Your task to perform on an android device: create a new album in the google photos Image 0: 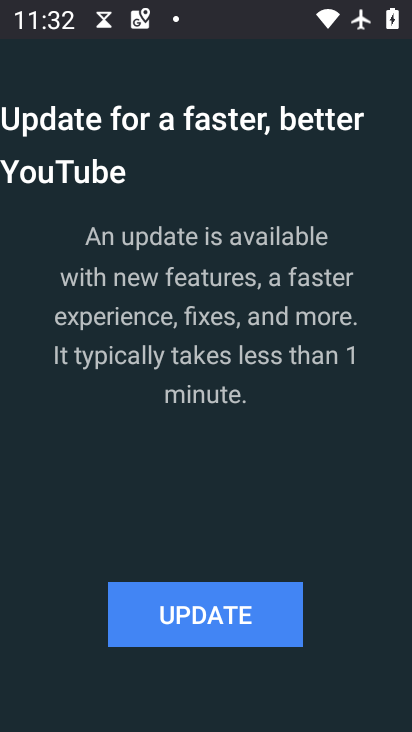
Step 0: press home button
Your task to perform on an android device: create a new album in the google photos Image 1: 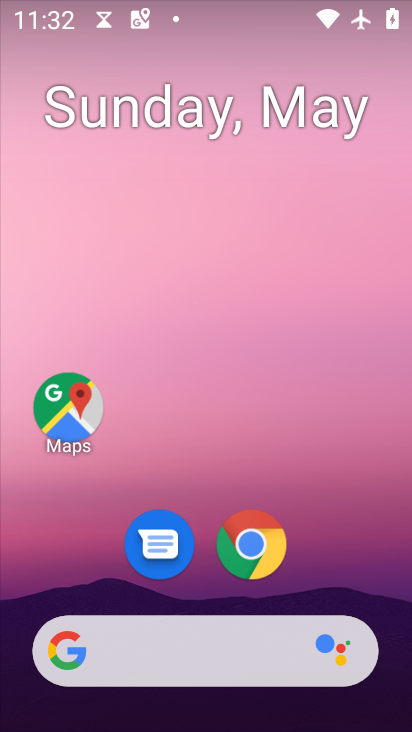
Step 1: drag from (331, 546) to (368, 154)
Your task to perform on an android device: create a new album in the google photos Image 2: 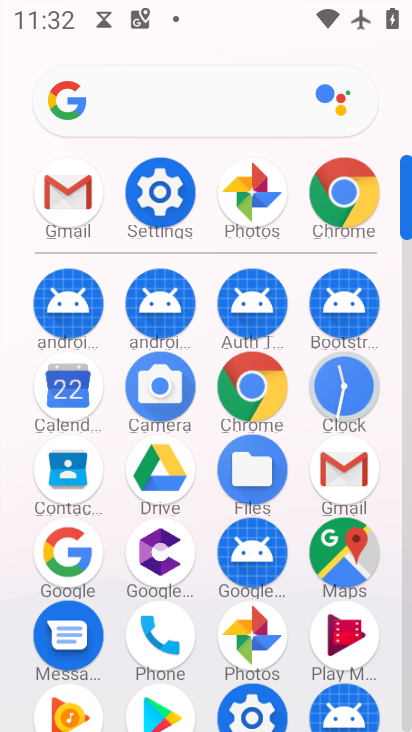
Step 2: click (246, 616)
Your task to perform on an android device: create a new album in the google photos Image 3: 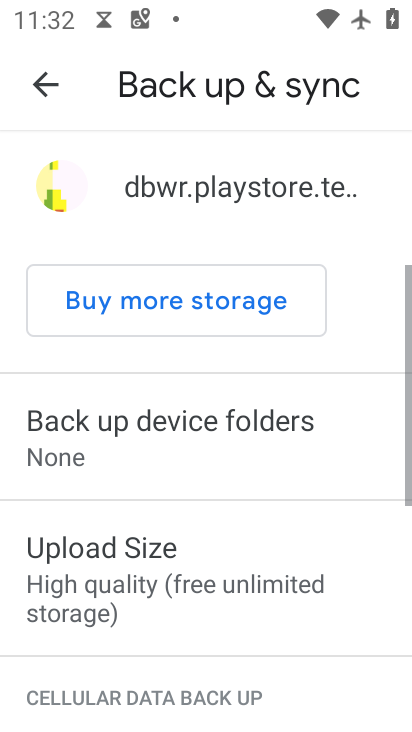
Step 3: click (67, 78)
Your task to perform on an android device: create a new album in the google photos Image 4: 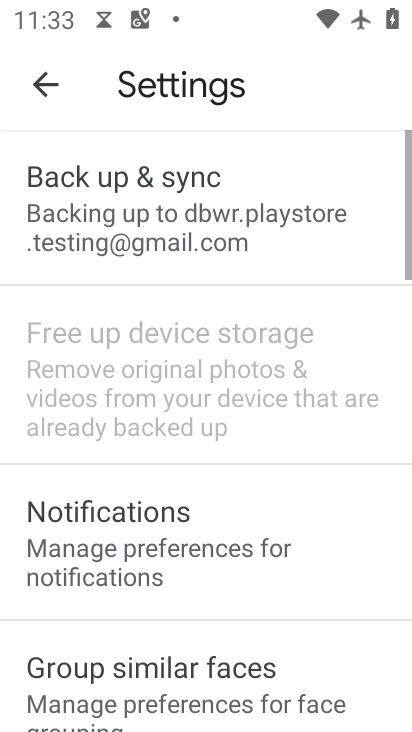
Step 4: click (64, 88)
Your task to perform on an android device: create a new album in the google photos Image 5: 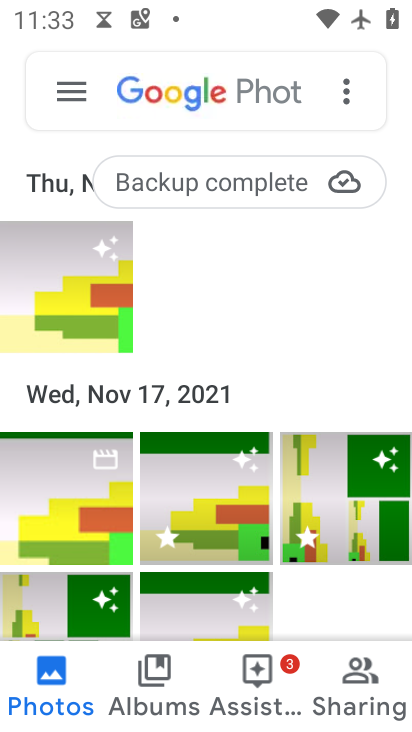
Step 5: click (44, 313)
Your task to perform on an android device: create a new album in the google photos Image 6: 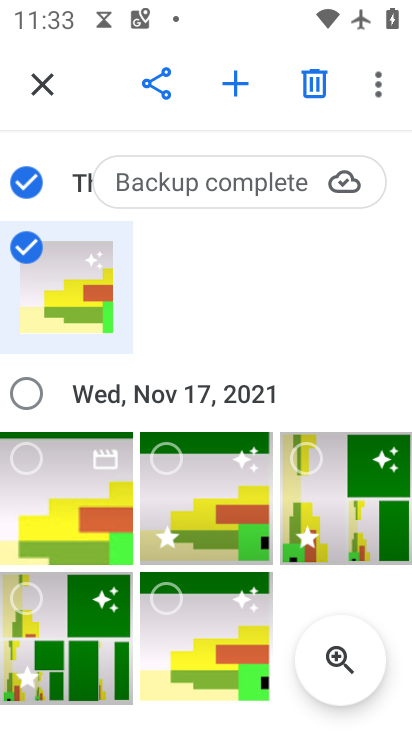
Step 6: click (244, 81)
Your task to perform on an android device: create a new album in the google photos Image 7: 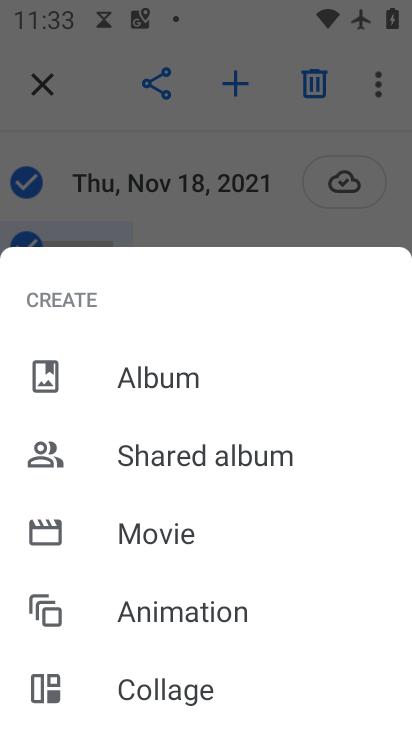
Step 7: click (247, 201)
Your task to perform on an android device: create a new album in the google photos Image 8: 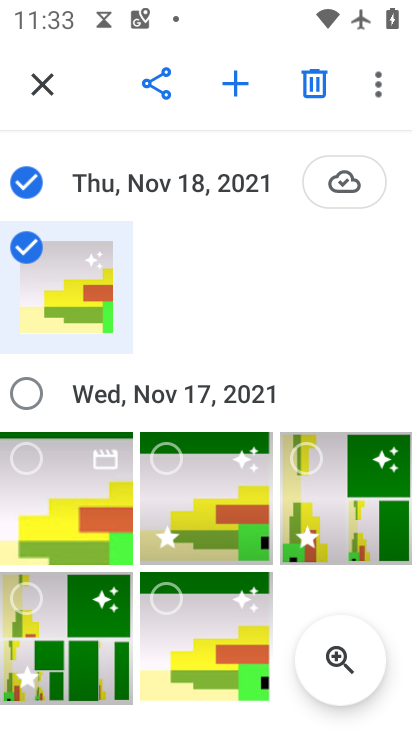
Step 8: click (174, 382)
Your task to perform on an android device: create a new album in the google photos Image 9: 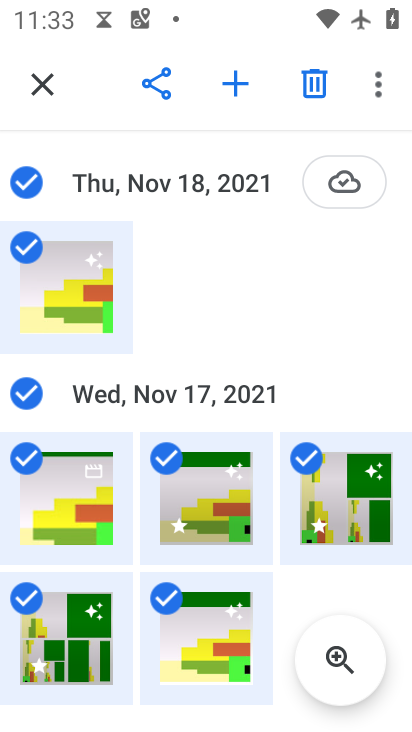
Step 9: click (248, 87)
Your task to perform on an android device: create a new album in the google photos Image 10: 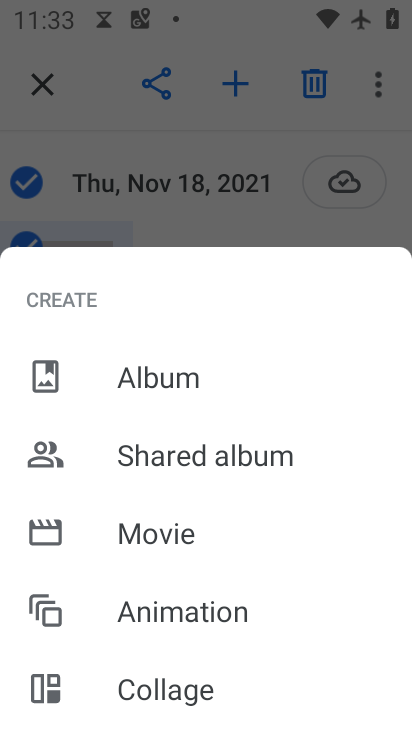
Step 10: click (160, 415)
Your task to perform on an android device: create a new album in the google photos Image 11: 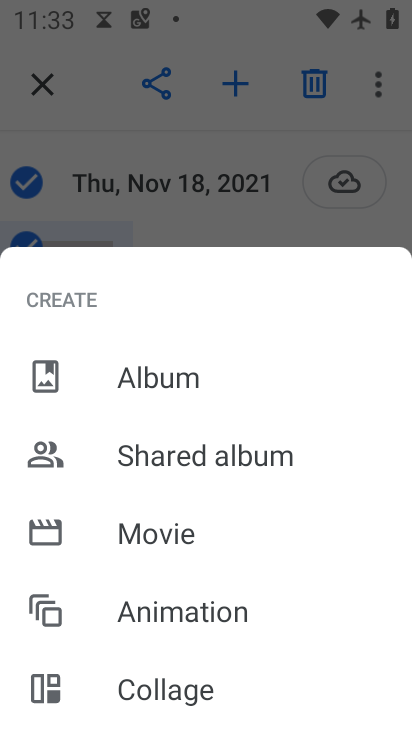
Step 11: click (171, 381)
Your task to perform on an android device: create a new album in the google photos Image 12: 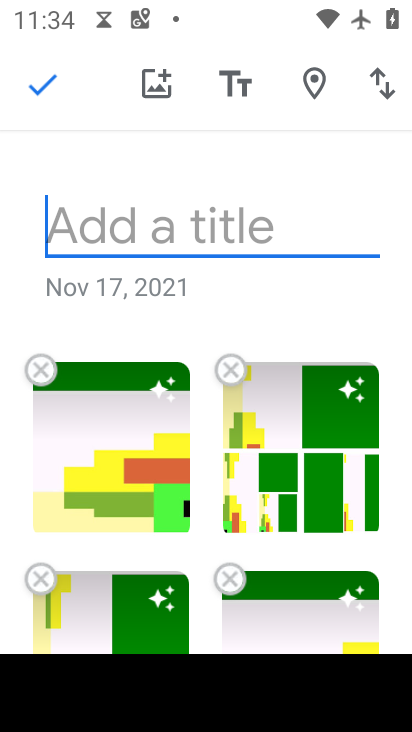
Step 12: click (188, 227)
Your task to perform on an android device: create a new album in the google photos Image 13: 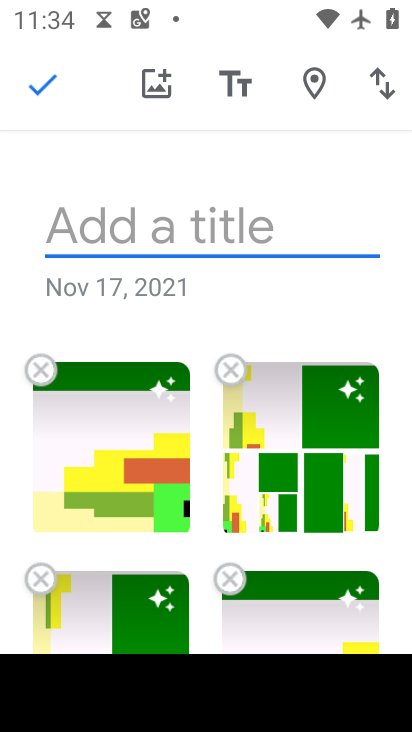
Step 13: type "kjhgfds"
Your task to perform on an android device: create a new album in the google photos Image 14: 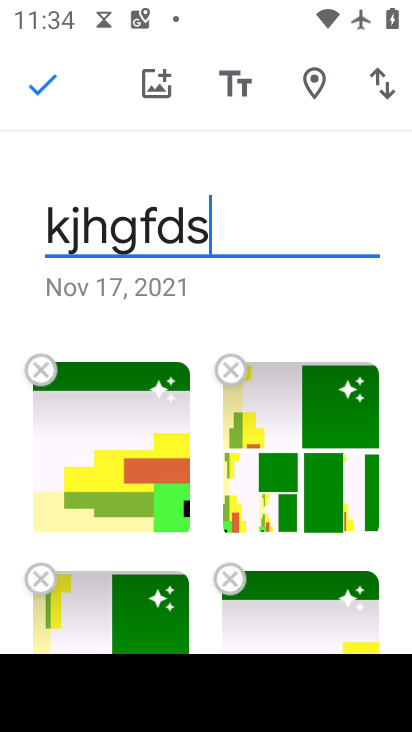
Step 14: click (26, 82)
Your task to perform on an android device: create a new album in the google photos Image 15: 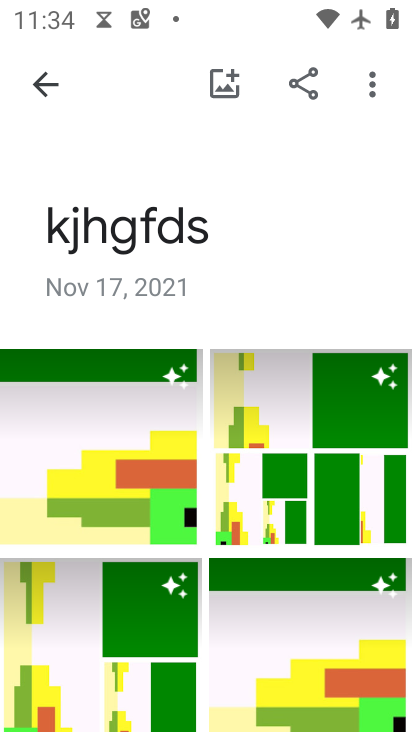
Step 15: task complete